Your task to perform on an android device: Open battery settings Image 0: 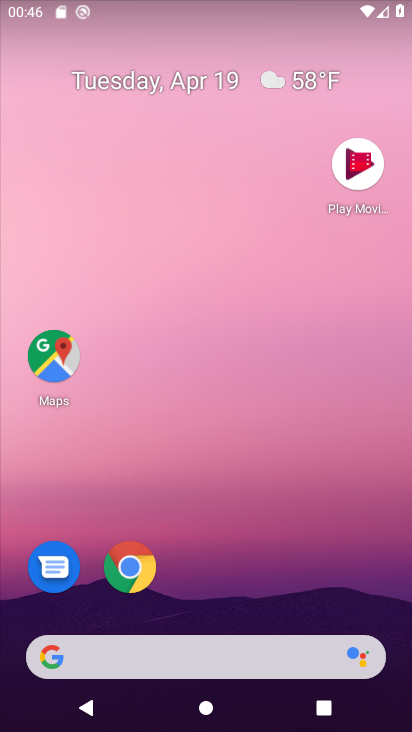
Step 0: drag from (226, 599) to (269, 106)
Your task to perform on an android device: Open battery settings Image 1: 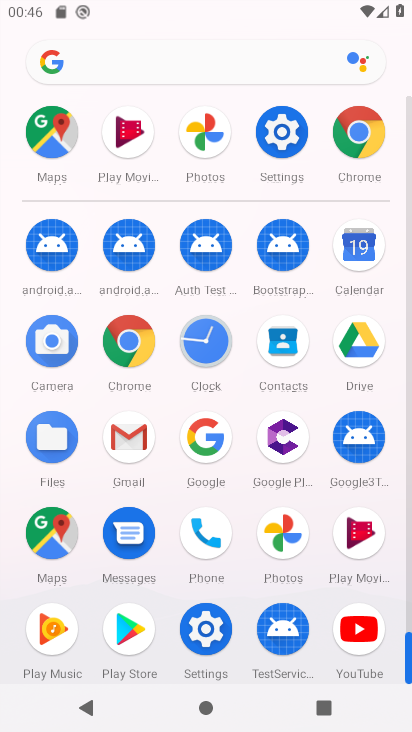
Step 1: click (198, 617)
Your task to perform on an android device: Open battery settings Image 2: 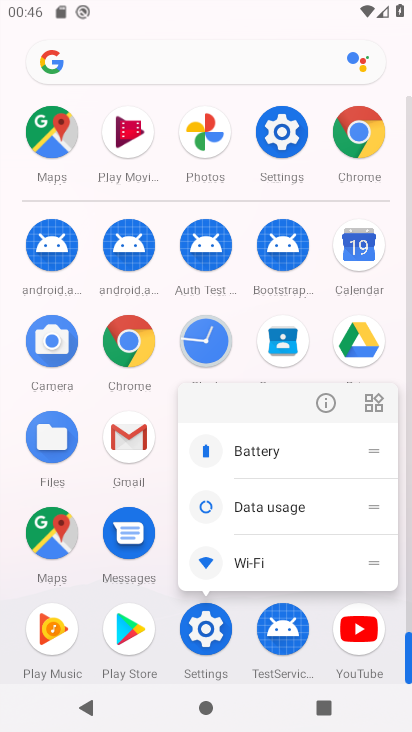
Step 2: click (328, 393)
Your task to perform on an android device: Open battery settings Image 3: 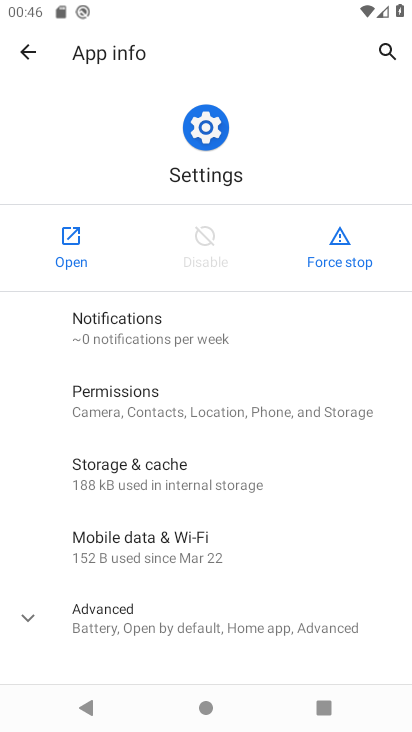
Step 3: click (47, 244)
Your task to perform on an android device: Open battery settings Image 4: 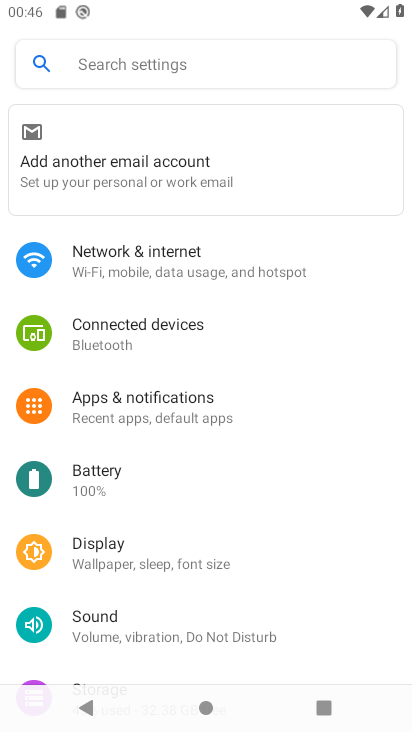
Step 4: click (140, 478)
Your task to perform on an android device: Open battery settings Image 5: 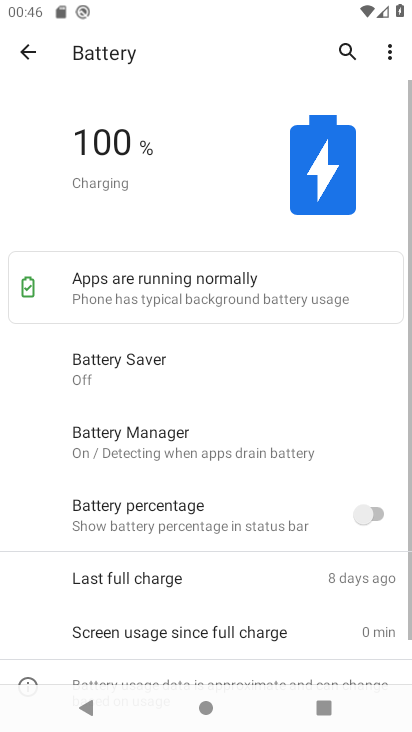
Step 5: click (394, 46)
Your task to perform on an android device: Open battery settings Image 6: 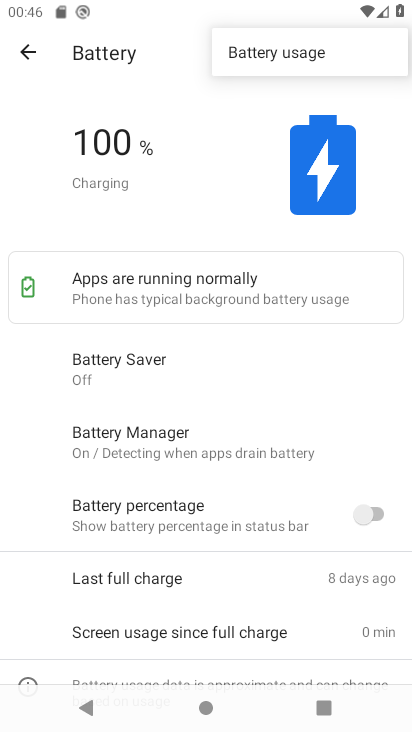
Step 6: click (284, 36)
Your task to perform on an android device: Open battery settings Image 7: 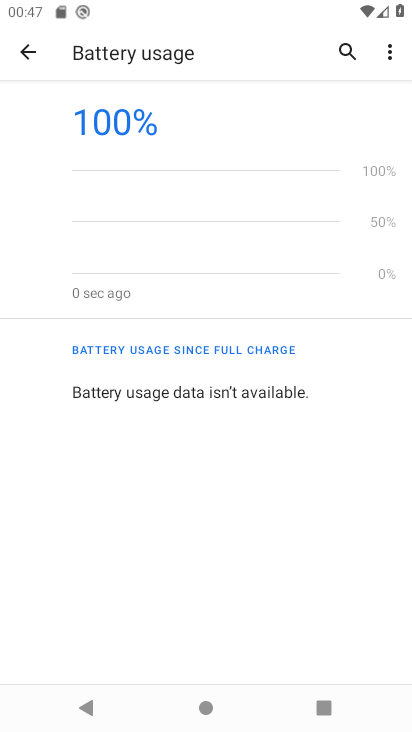
Step 7: task complete